Your task to perform on an android device: open a bookmark in the chrome app Image 0: 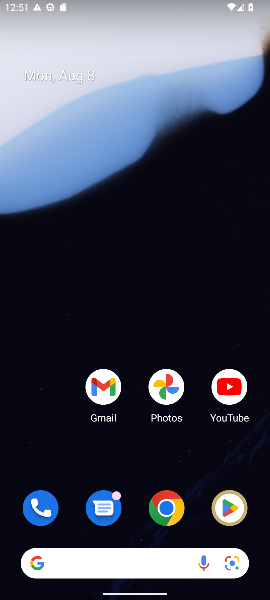
Step 0: click (164, 513)
Your task to perform on an android device: open a bookmark in the chrome app Image 1: 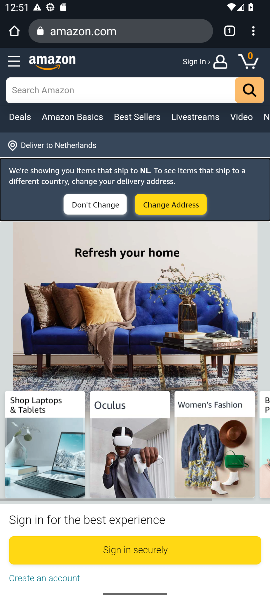
Step 1: click (254, 31)
Your task to perform on an android device: open a bookmark in the chrome app Image 2: 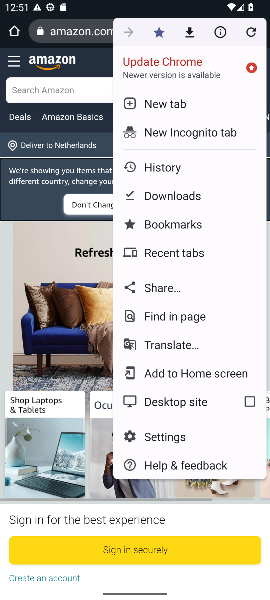
Step 2: click (177, 218)
Your task to perform on an android device: open a bookmark in the chrome app Image 3: 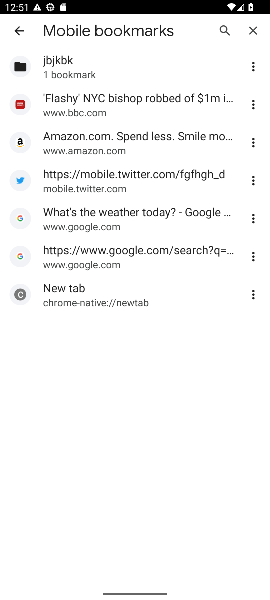
Step 3: click (93, 184)
Your task to perform on an android device: open a bookmark in the chrome app Image 4: 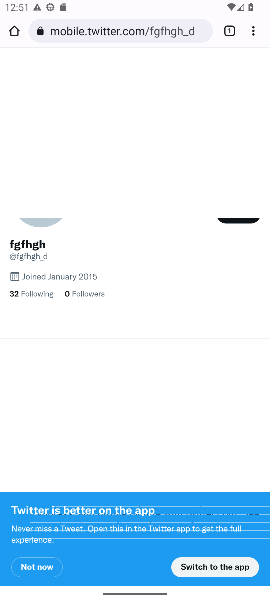
Step 4: task complete